Your task to perform on an android device: Go to eBay Image 0: 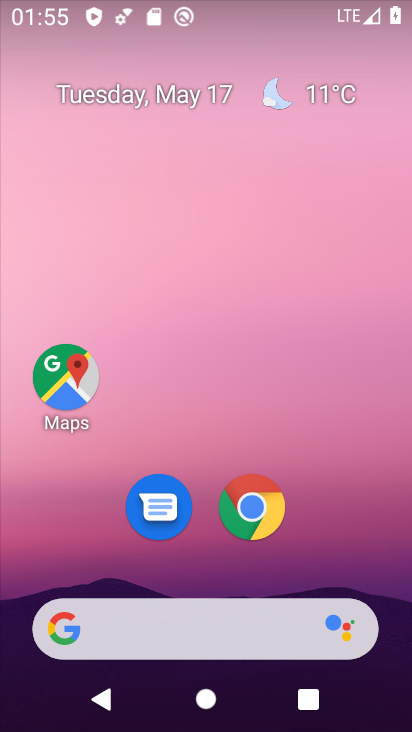
Step 0: click (245, 502)
Your task to perform on an android device: Go to eBay Image 1: 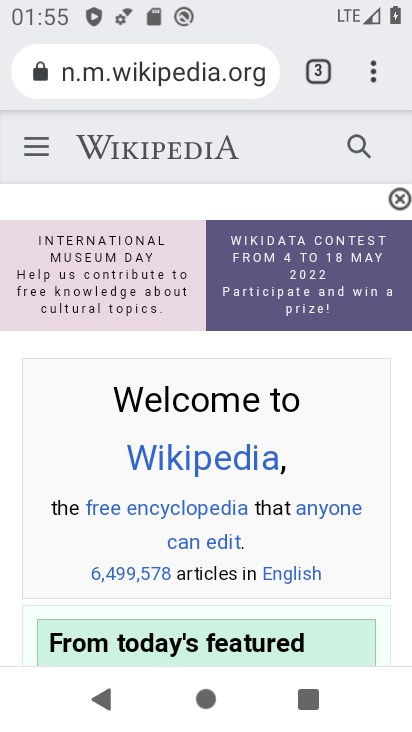
Step 1: click (209, 47)
Your task to perform on an android device: Go to eBay Image 2: 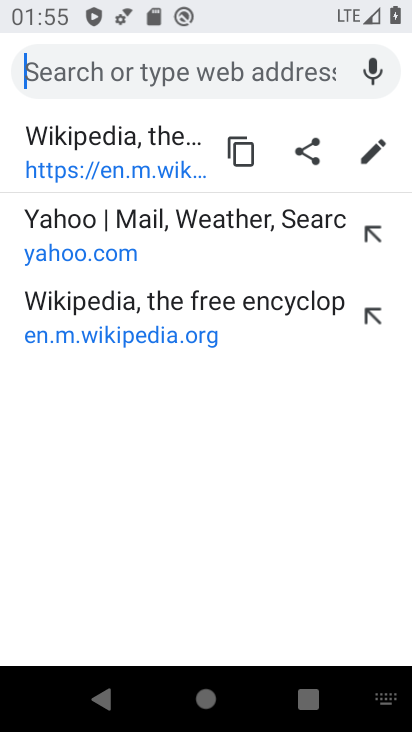
Step 2: type "ebay"
Your task to perform on an android device: Go to eBay Image 3: 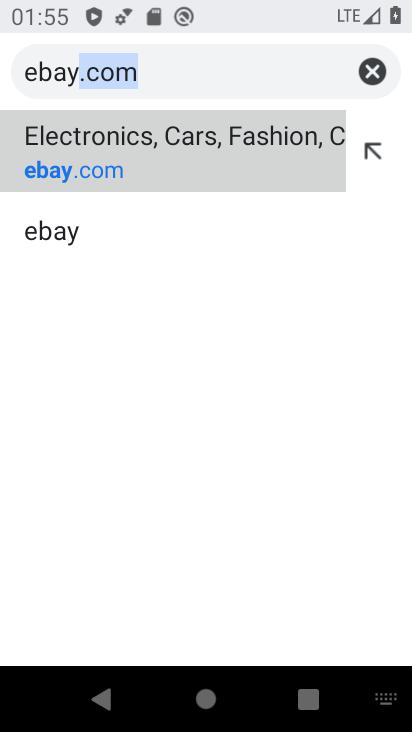
Step 3: click (246, 162)
Your task to perform on an android device: Go to eBay Image 4: 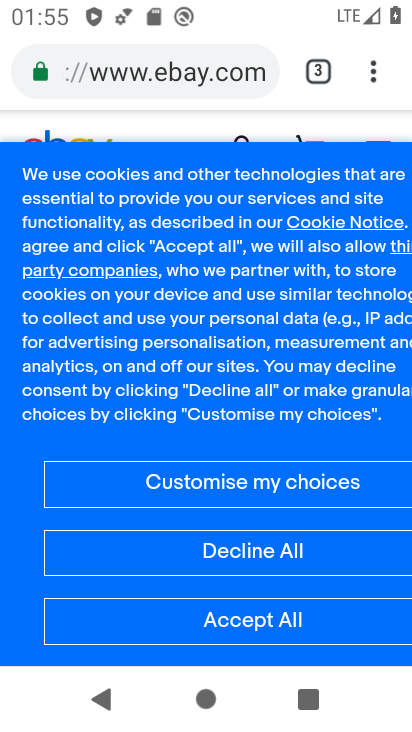
Step 4: task complete